Your task to perform on an android device: Go to privacy settings Image 0: 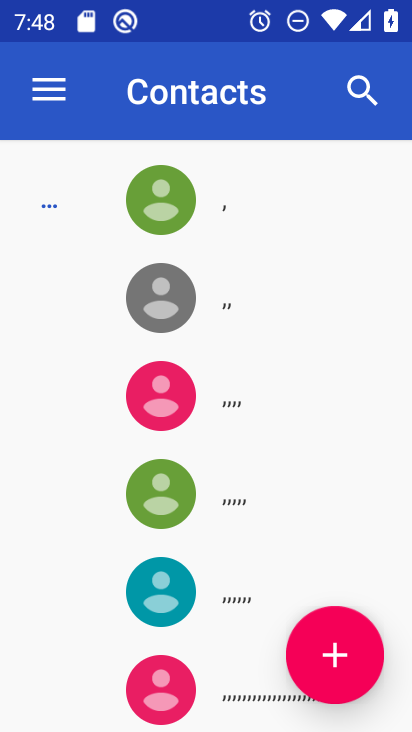
Step 0: press home button
Your task to perform on an android device: Go to privacy settings Image 1: 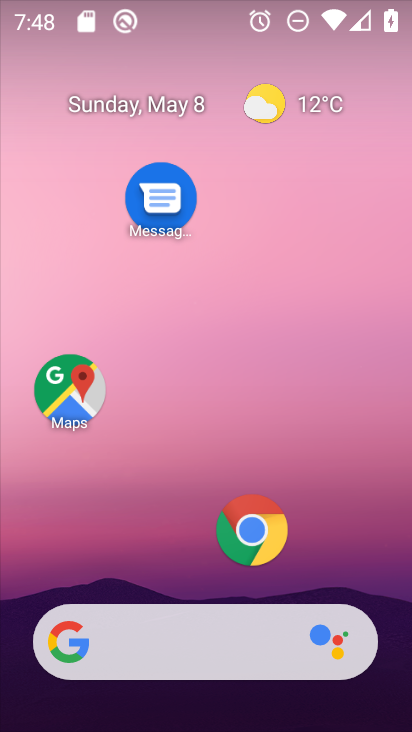
Step 1: drag from (203, 517) to (253, 4)
Your task to perform on an android device: Go to privacy settings Image 2: 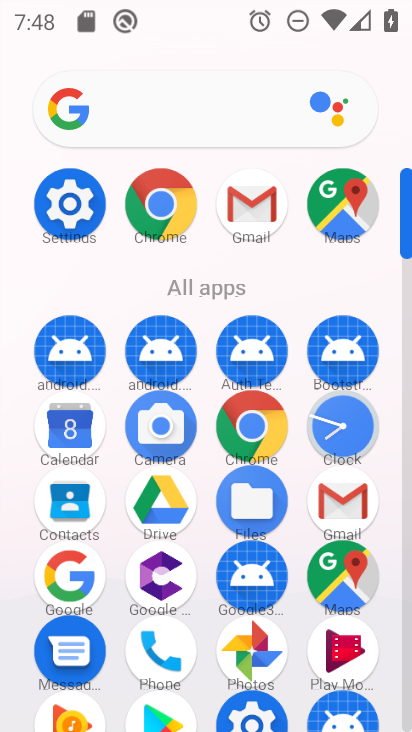
Step 2: click (67, 197)
Your task to perform on an android device: Go to privacy settings Image 3: 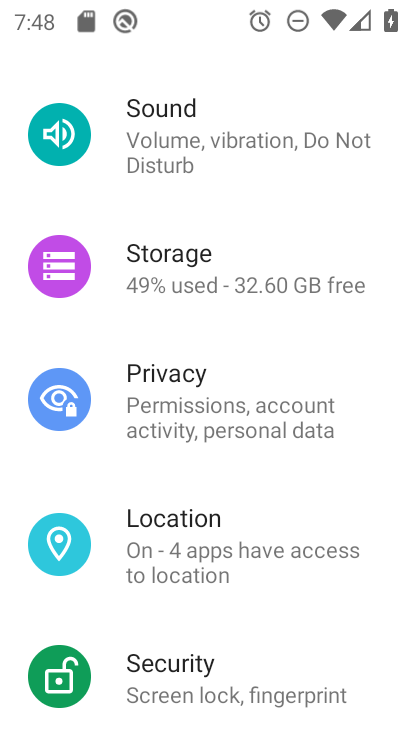
Step 3: click (99, 388)
Your task to perform on an android device: Go to privacy settings Image 4: 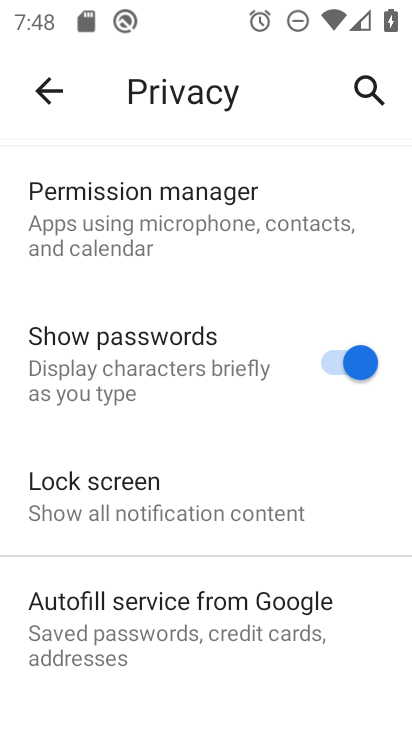
Step 4: drag from (189, 513) to (216, 57)
Your task to perform on an android device: Go to privacy settings Image 5: 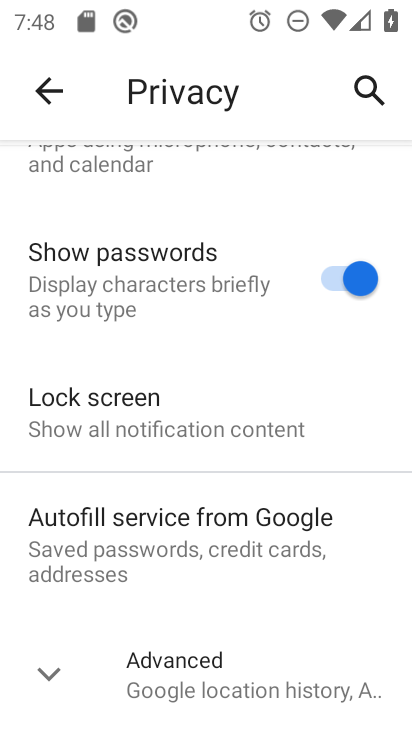
Step 5: click (47, 671)
Your task to perform on an android device: Go to privacy settings Image 6: 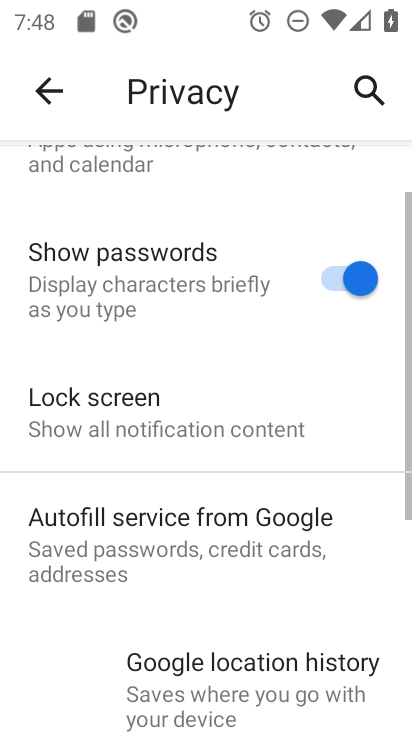
Step 6: task complete